Your task to perform on an android device: open a bookmark in the chrome app Image 0: 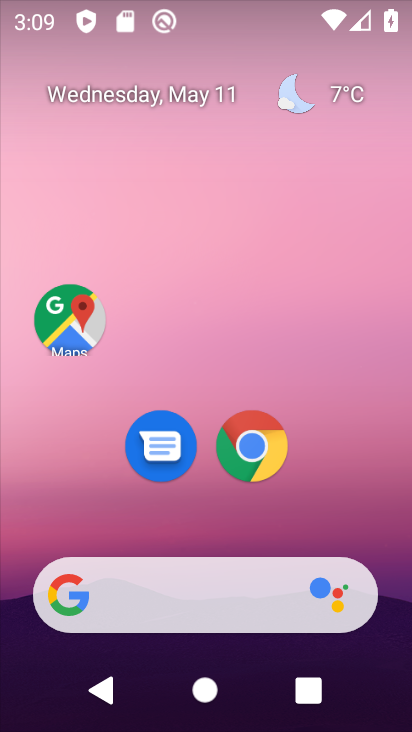
Step 0: drag from (306, 640) to (118, 216)
Your task to perform on an android device: open a bookmark in the chrome app Image 1: 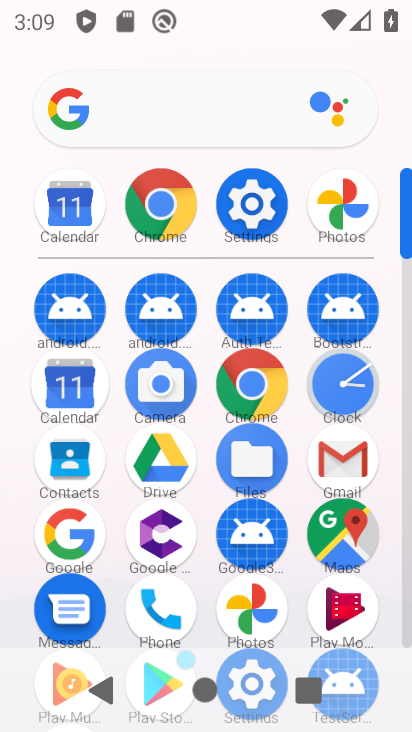
Step 1: click (154, 215)
Your task to perform on an android device: open a bookmark in the chrome app Image 2: 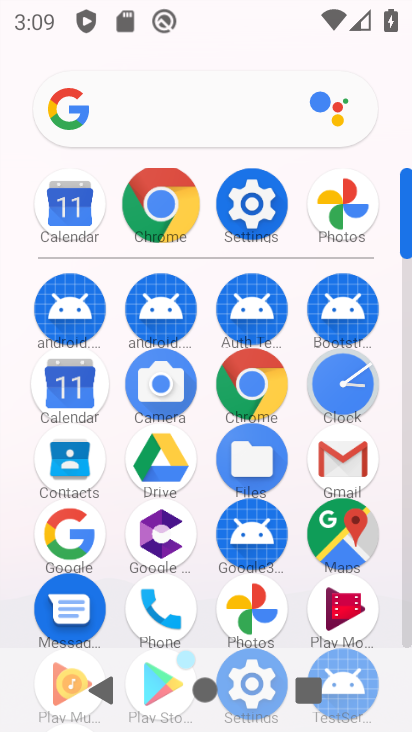
Step 2: click (154, 215)
Your task to perform on an android device: open a bookmark in the chrome app Image 3: 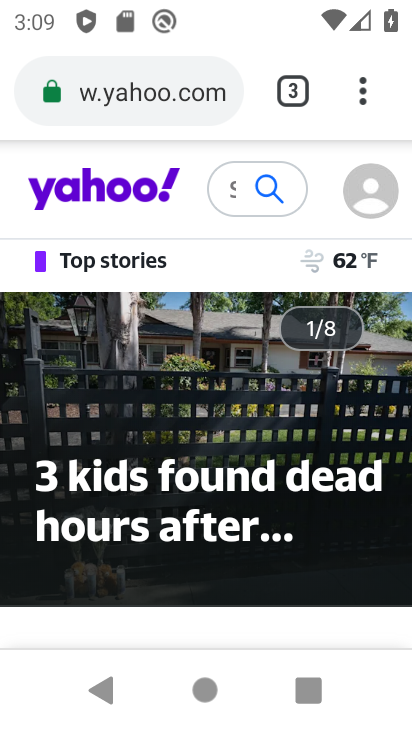
Step 3: drag from (356, 92) to (73, 244)
Your task to perform on an android device: open a bookmark in the chrome app Image 4: 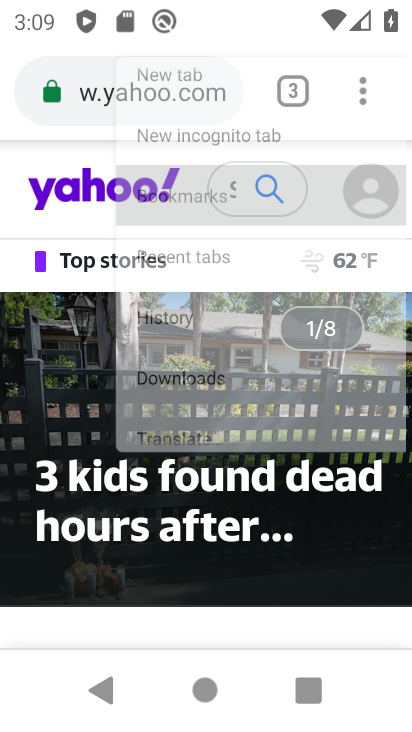
Step 4: click (73, 244)
Your task to perform on an android device: open a bookmark in the chrome app Image 5: 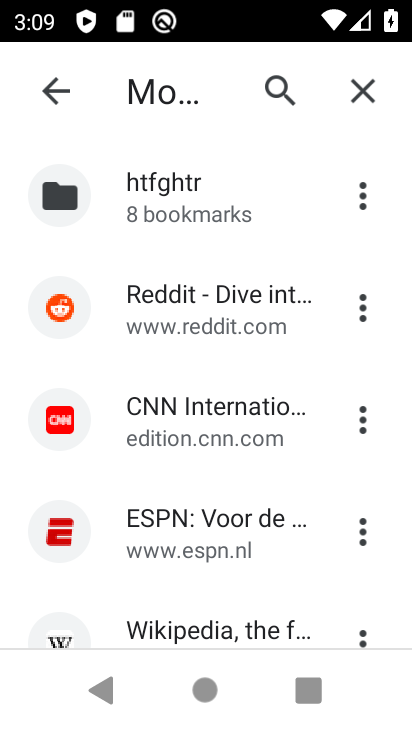
Step 5: task complete